Your task to perform on an android device: turn off sleep mode Image 0: 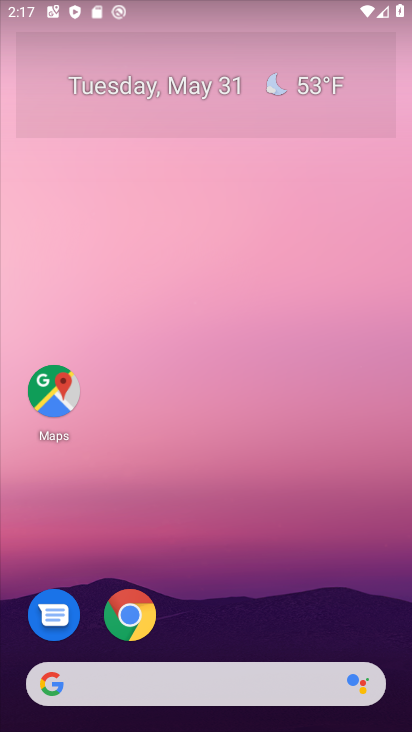
Step 0: drag from (236, 445) to (258, 46)
Your task to perform on an android device: turn off sleep mode Image 1: 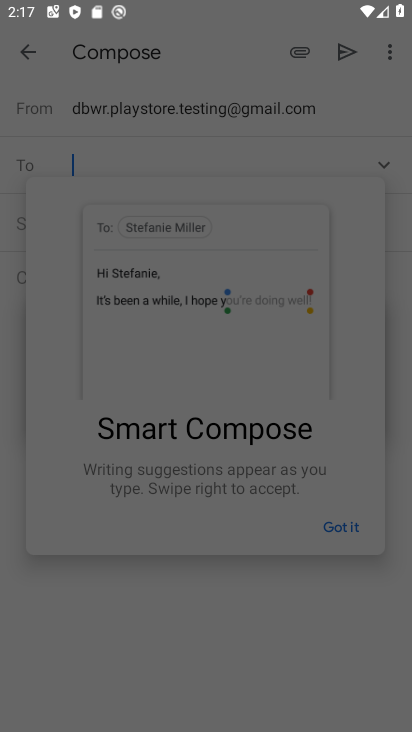
Step 1: press back button
Your task to perform on an android device: turn off sleep mode Image 2: 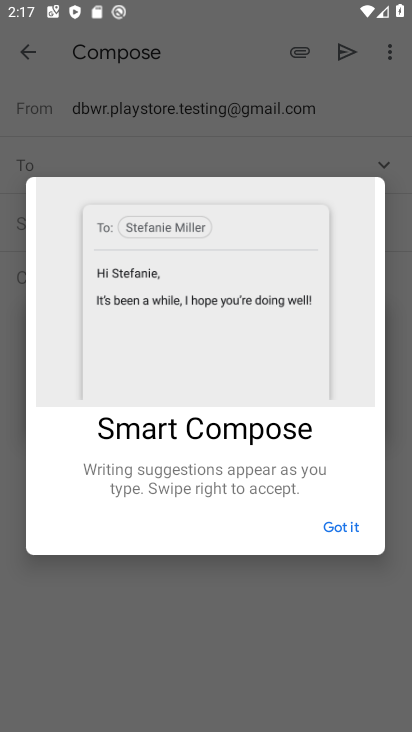
Step 2: press back button
Your task to perform on an android device: turn off sleep mode Image 3: 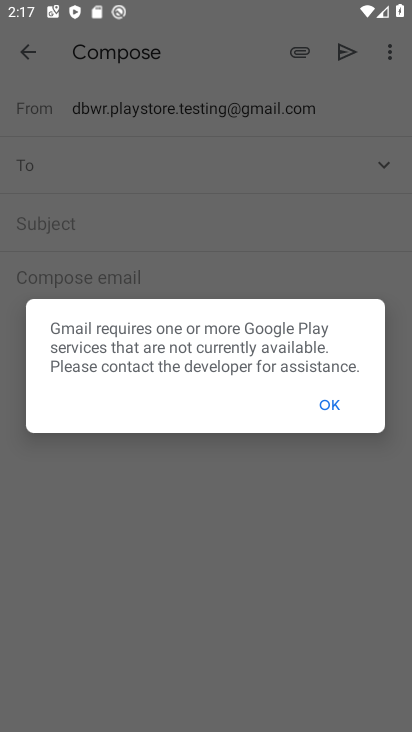
Step 3: press home button
Your task to perform on an android device: turn off sleep mode Image 4: 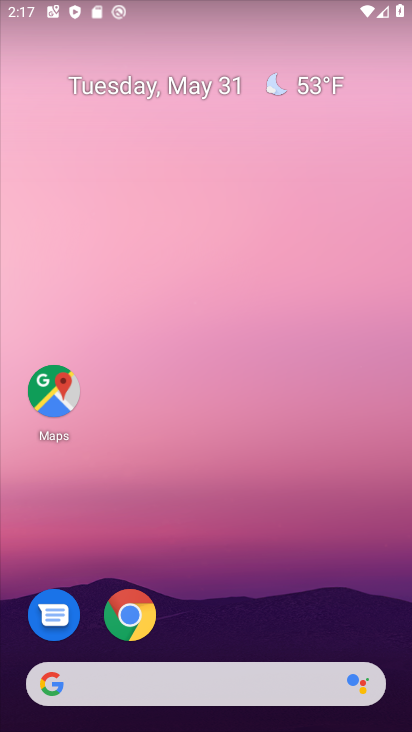
Step 4: drag from (210, 611) to (275, 33)
Your task to perform on an android device: turn off sleep mode Image 5: 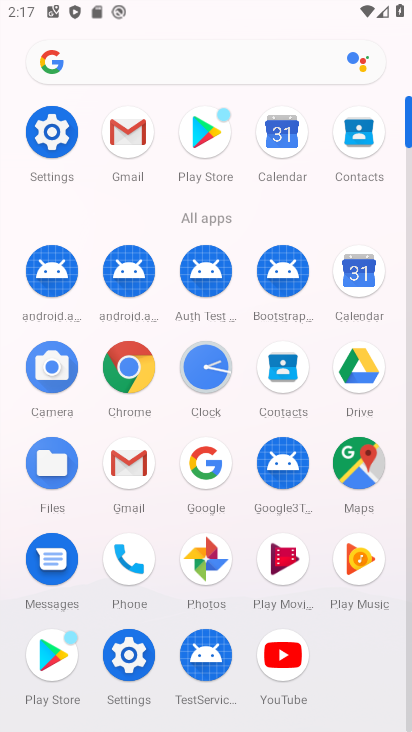
Step 5: click (42, 126)
Your task to perform on an android device: turn off sleep mode Image 6: 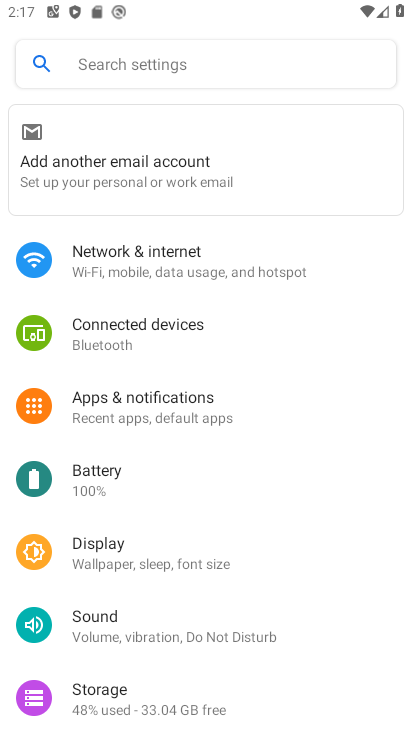
Step 6: click (134, 61)
Your task to perform on an android device: turn off sleep mode Image 7: 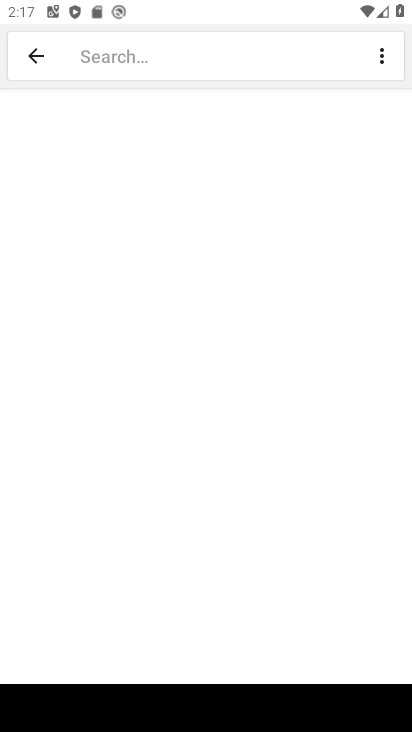
Step 7: type "sleep mode"
Your task to perform on an android device: turn off sleep mode Image 8: 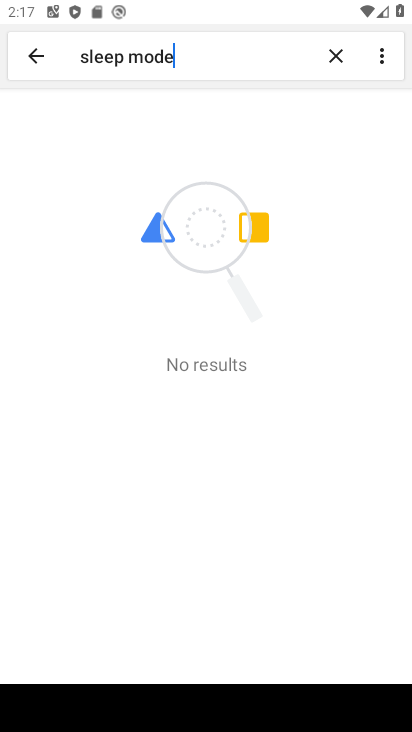
Step 8: task complete